Your task to perform on an android device: show emergency info Image 0: 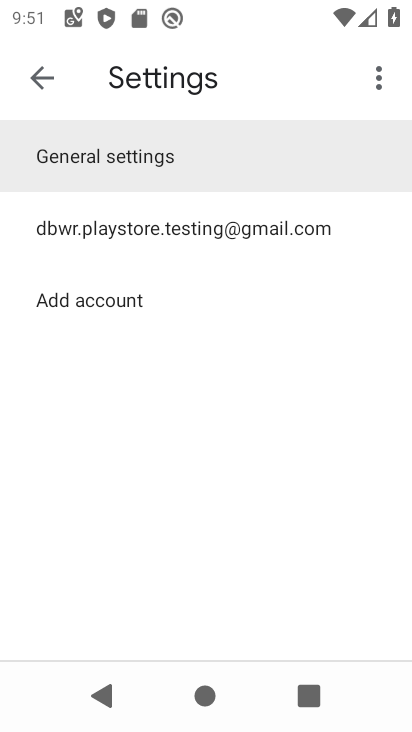
Step 0: press home button
Your task to perform on an android device: show emergency info Image 1: 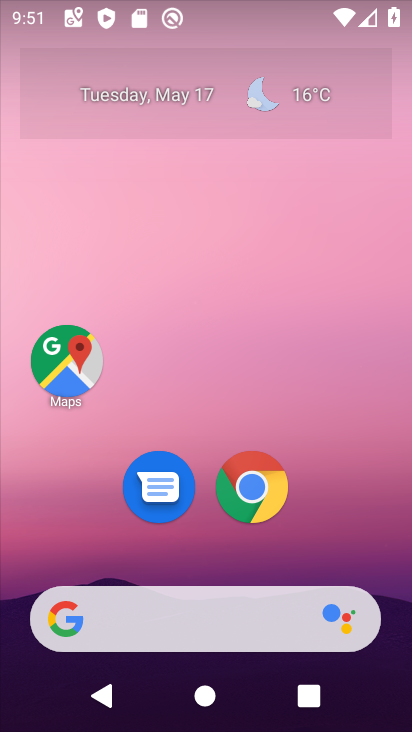
Step 1: drag from (220, 568) to (216, 133)
Your task to perform on an android device: show emergency info Image 2: 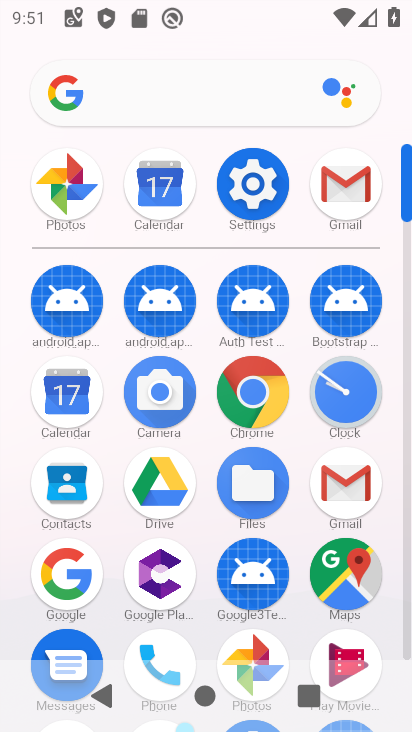
Step 2: drag from (216, 596) to (221, 152)
Your task to perform on an android device: show emergency info Image 3: 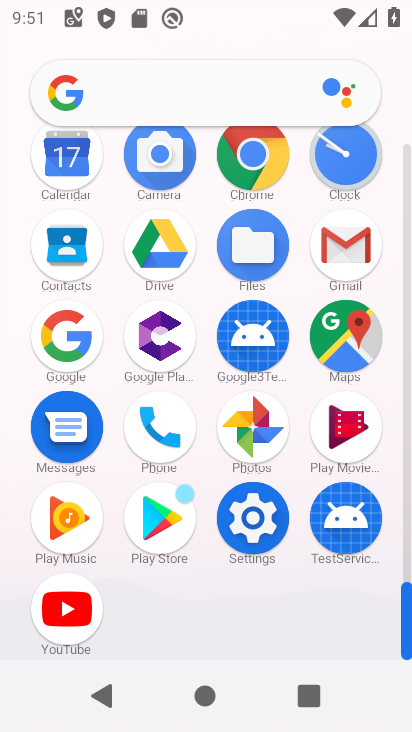
Step 3: click (263, 534)
Your task to perform on an android device: show emergency info Image 4: 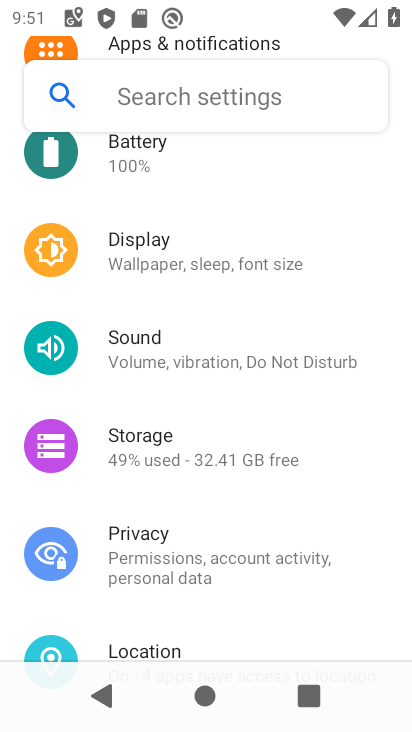
Step 4: drag from (223, 583) to (228, 180)
Your task to perform on an android device: show emergency info Image 5: 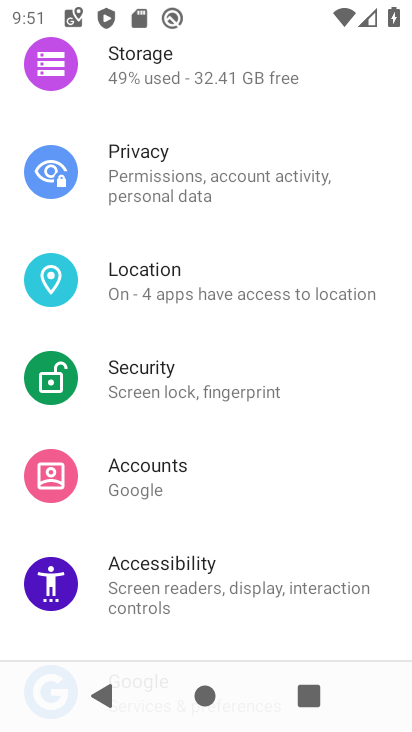
Step 5: drag from (198, 561) to (200, 107)
Your task to perform on an android device: show emergency info Image 6: 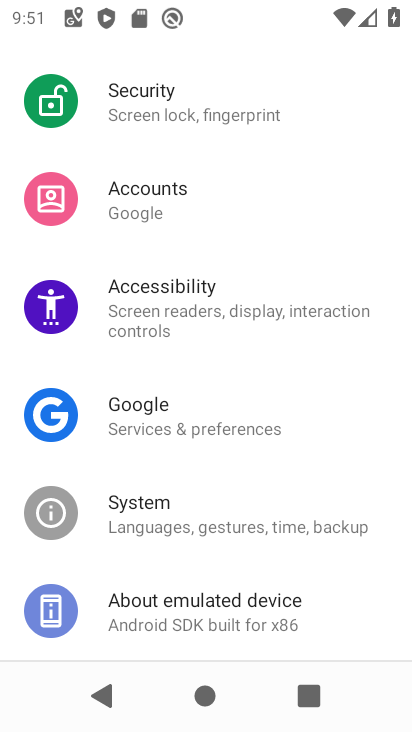
Step 6: click (175, 622)
Your task to perform on an android device: show emergency info Image 7: 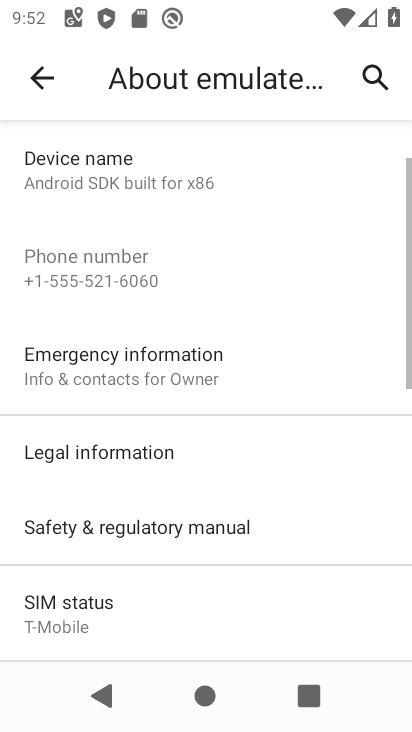
Step 7: click (174, 376)
Your task to perform on an android device: show emergency info Image 8: 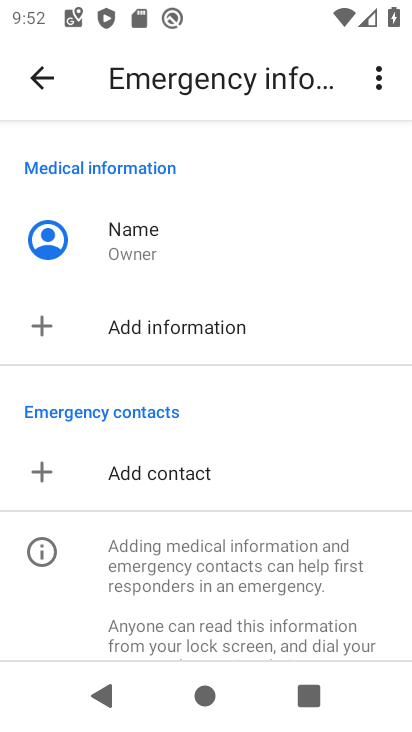
Step 8: task complete